Your task to perform on an android device: Find coffee shops on Maps Image 0: 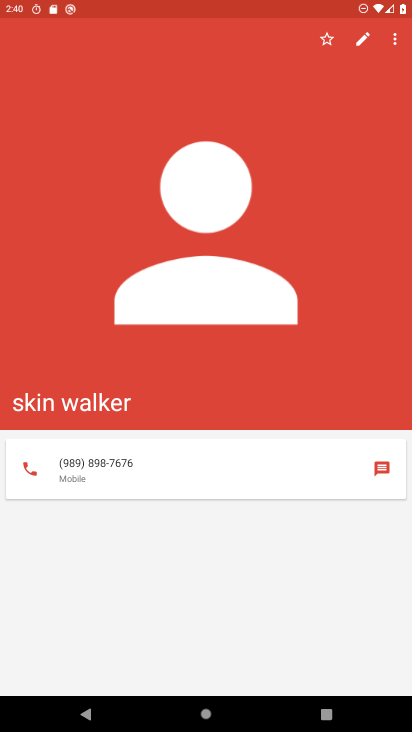
Step 0: press home button
Your task to perform on an android device: Find coffee shops on Maps Image 1: 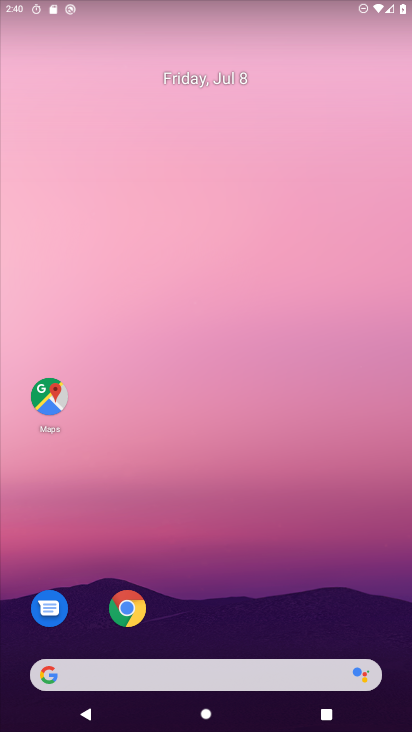
Step 1: drag from (256, 718) to (255, 196)
Your task to perform on an android device: Find coffee shops on Maps Image 2: 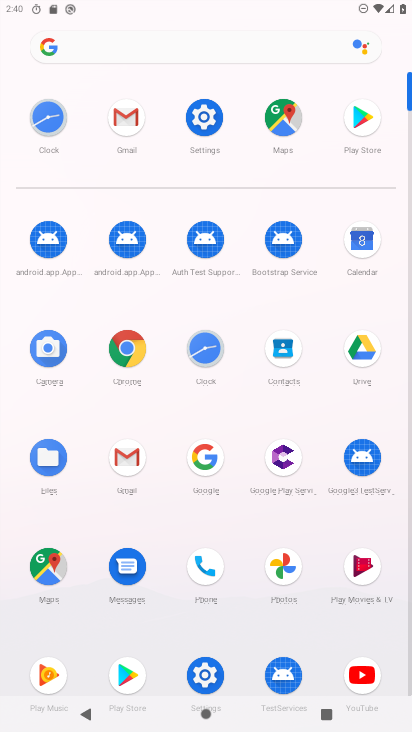
Step 2: click (284, 122)
Your task to perform on an android device: Find coffee shops on Maps Image 3: 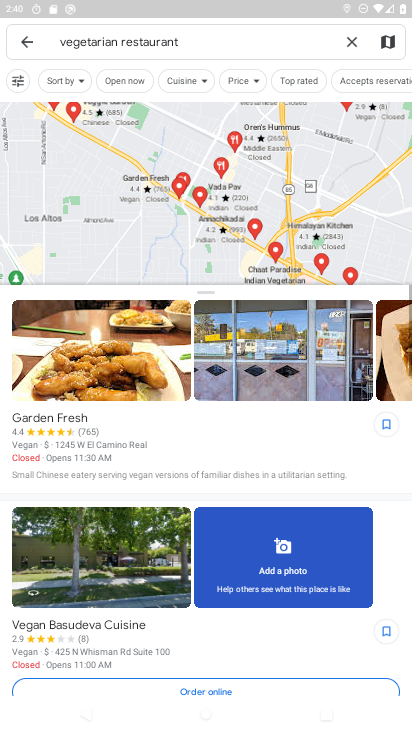
Step 3: click (352, 33)
Your task to perform on an android device: Find coffee shops on Maps Image 4: 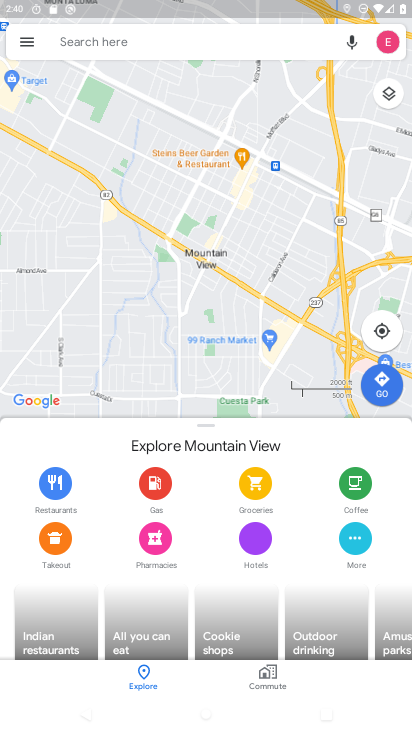
Step 4: click (162, 37)
Your task to perform on an android device: Find coffee shops on Maps Image 5: 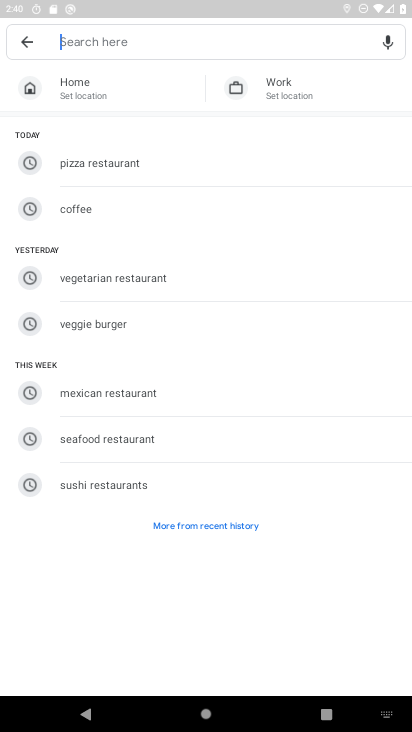
Step 5: type "coffee shops"
Your task to perform on an android device: Find coffee shops on Maps Image 6: 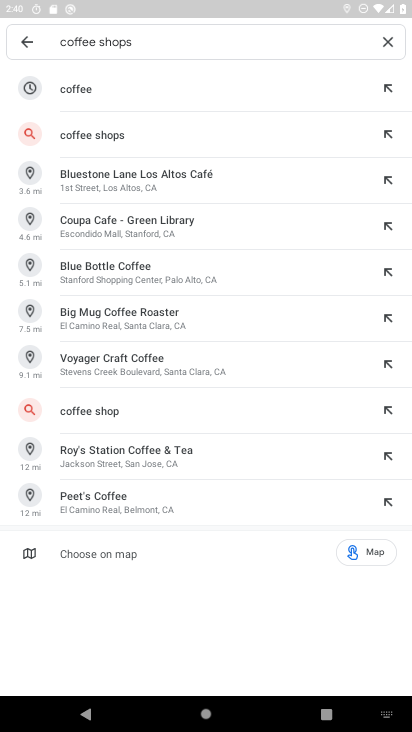
Step 6: click (76, 134)
Your task to perform on an android device: Find coffee shops on Maps Image 7: 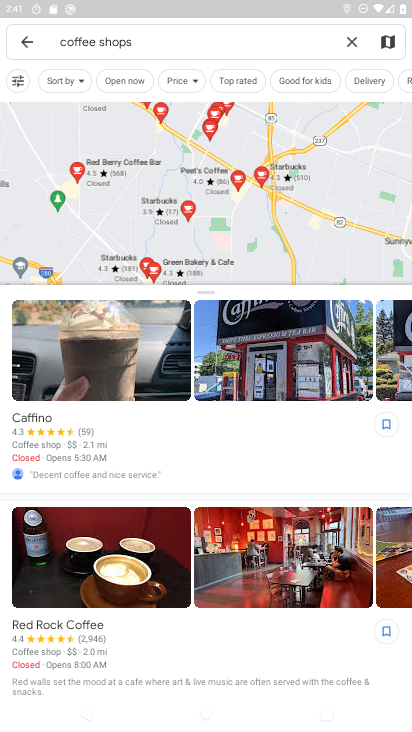
Step 7: task complete